Your task to perform on an android device: Go to Google maps Image 0: 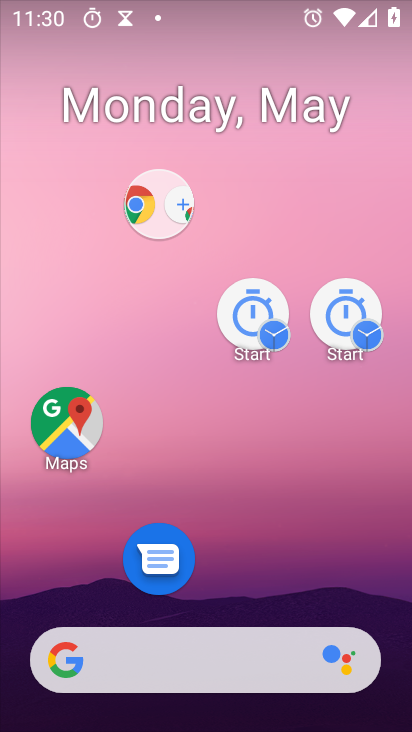
Step 0: drag from (234, 718) to (148, 77)
Your task to perform on an android device: Go to Google maps Image 1: 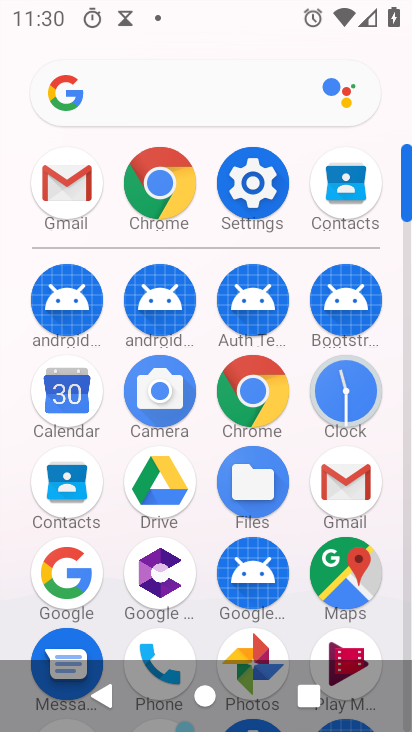
Step 1: click (336, 578)
Your task to perform on an android device: Go to Google maps Image 2: 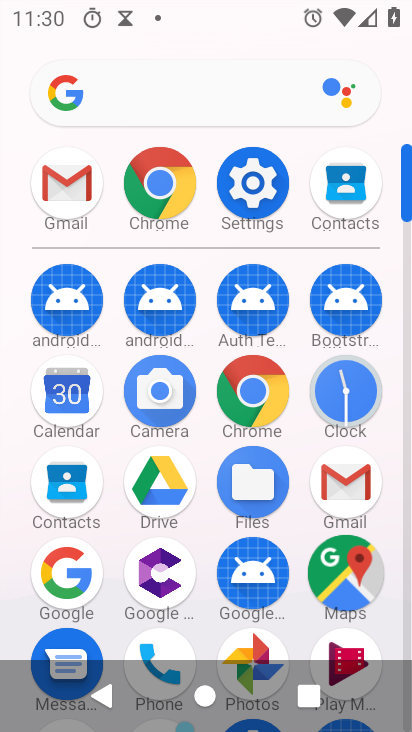
Step 2: click (336, 574)
Your task to perform on an android device: Go to Google maps Image 3: 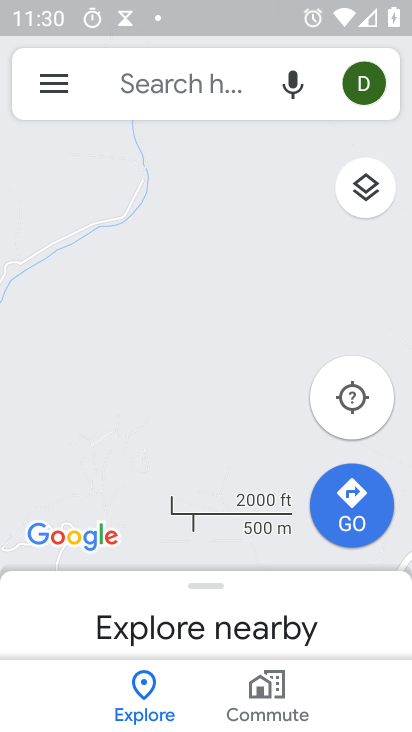
Step 3: task complete